Your task to perform on an android device: turn off translation in the chrome app Image 0: 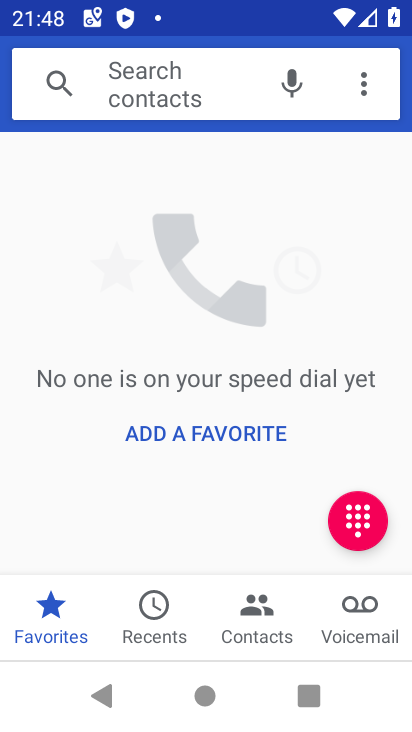
Step 0: click (332, 77)
Your task to perform on an android device: turn off translation in the chrome app Image 1: 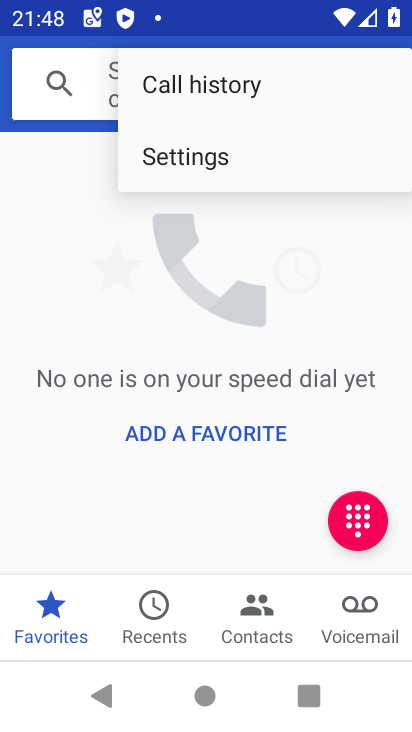
Step 1: press home button
Your task to perform on an android device: turn off translation in the chrome app Image 2: 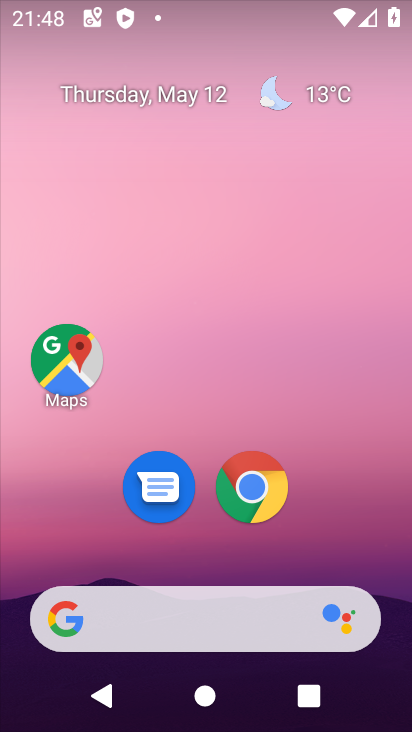
Step 2: click (255, 474)
Your task to perform on an android device: turn off translation in the chrome app Image 3: 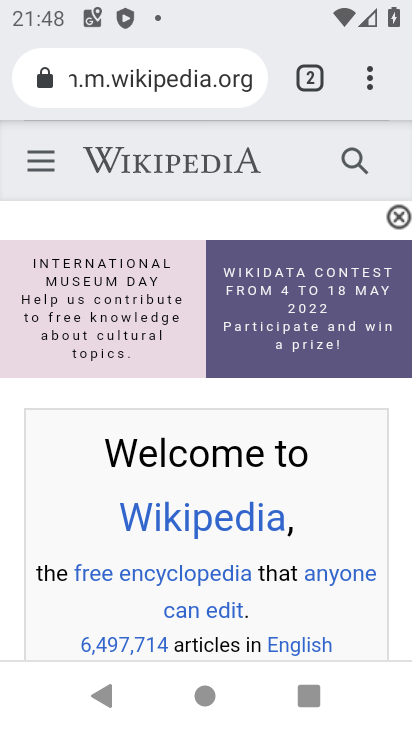
Step 3: click (398, 71)
Your task to perform on an android device: turn off translation in the chrome app Image 4: 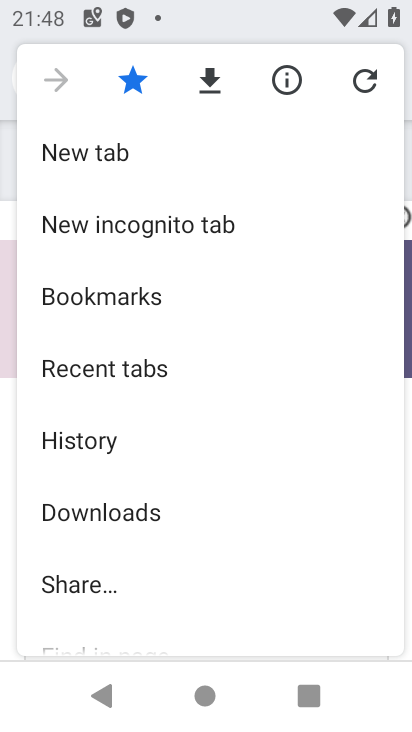
Step 4: drag from (109, 607) to (209, 106)
Your task to perform on an android device: turn off translation in the chrome app Image 5: 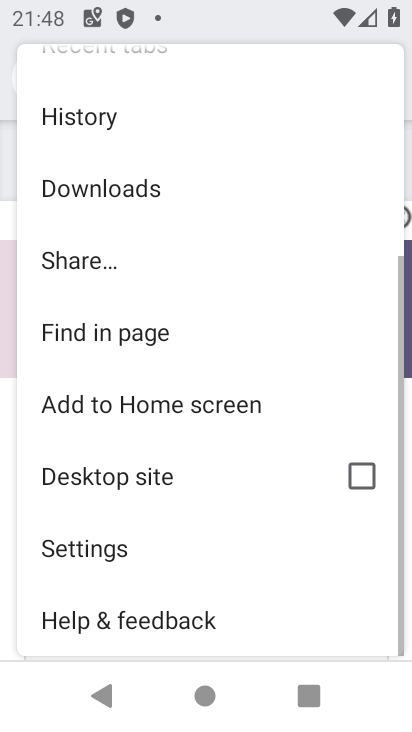
Step 5: click (139, 564)
Your task to perform on an android device: turn off translation in the chrome app Image 6: 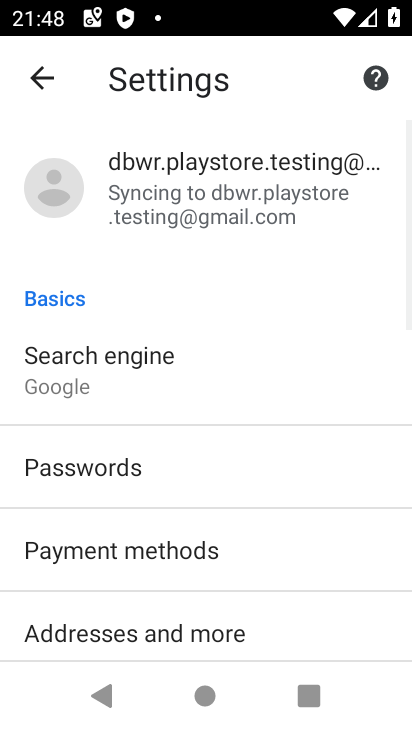
Step 6: drag from (122, 587) to (213, 251)
Your task to perform on an android device: turn off translation in the chrome app Image 7: 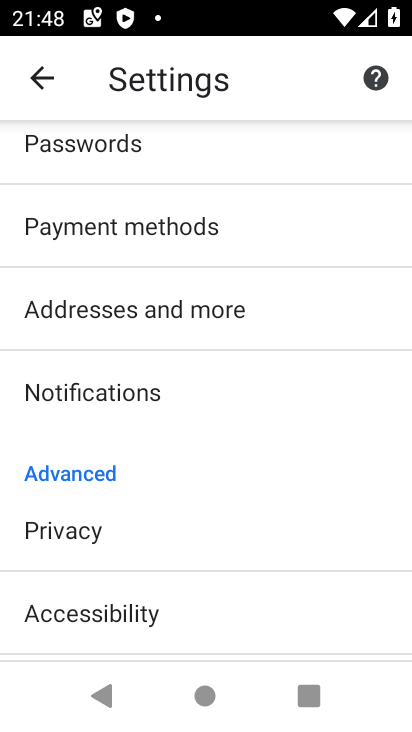
Step 7: drag from (95, 627) to (205, 178)
Your task to perform on an android device: turn off translation in the chrome app Image 8: 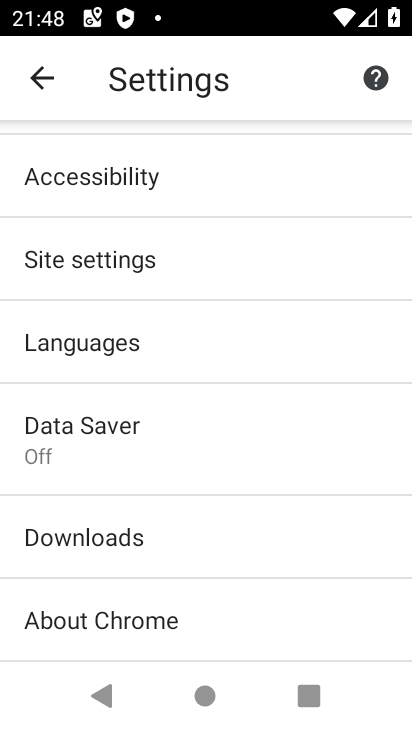
Step 8: click (177, 344)
Your task to perform on an android device: turn off translation in the chrome app Image 9: 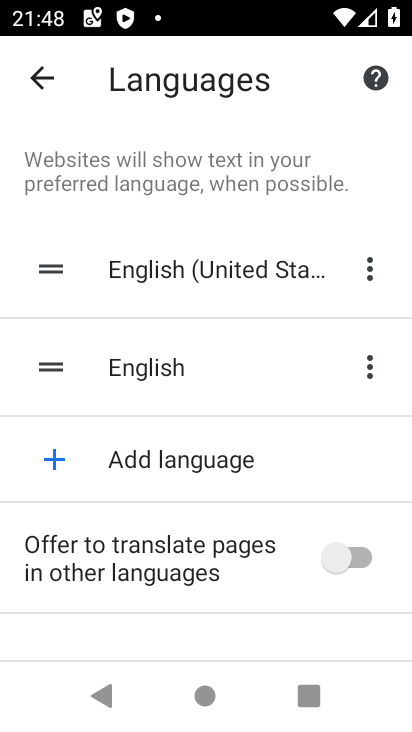
Step 9: task complete